Your task to perform on an android device: open sync settings in chrome Image 0: 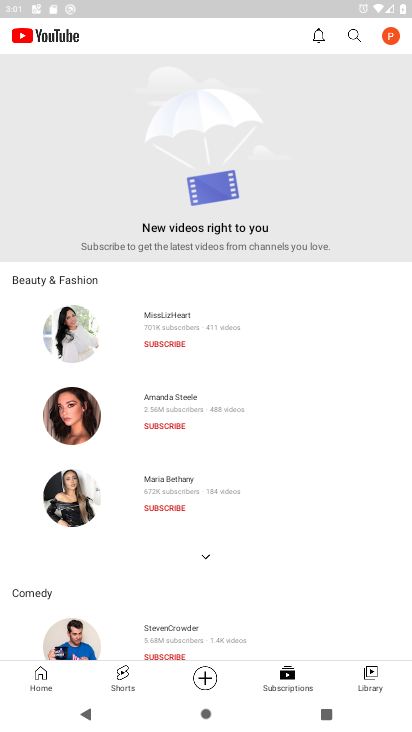
Step 0: press home button
Your task to perform on an android device: open sync settings in chrome Image 1: 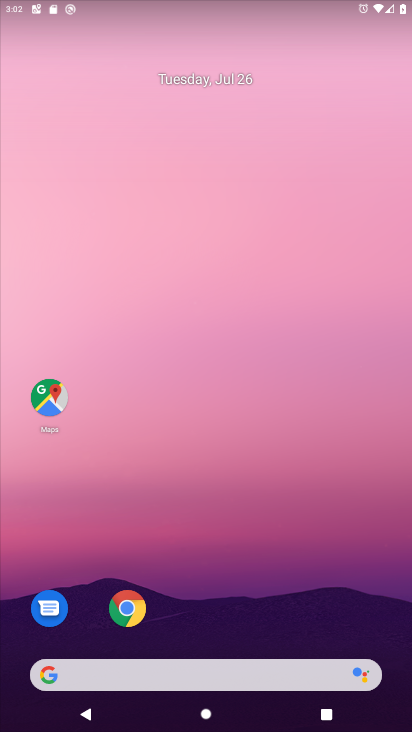
Step 1: click (122, 603)
Your task to perform on an android device: open sync settings in chrome Image 2: 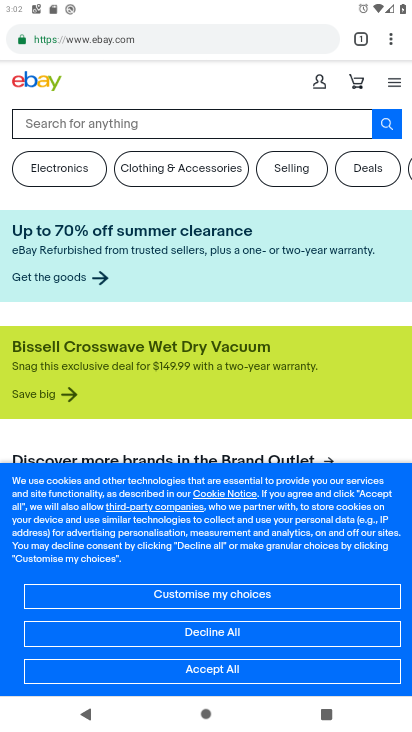
Step 2: click (389, 32)
Your task to perform on an android device: open sync settings in chrome Image 3: 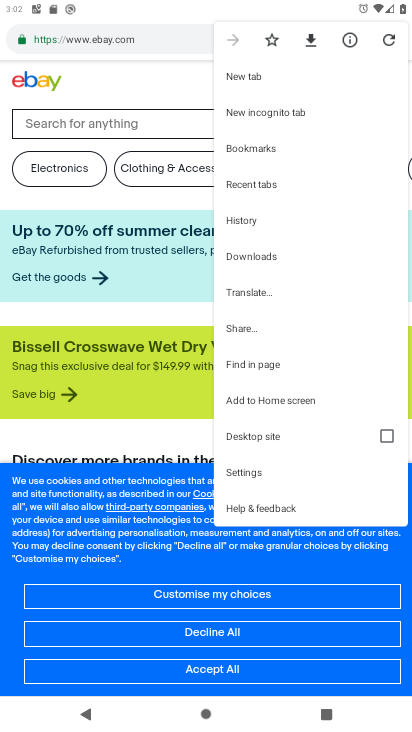
Step 3: click (276, 466)
Your task to perform on an android device: open sync settings in chrome Image 4: 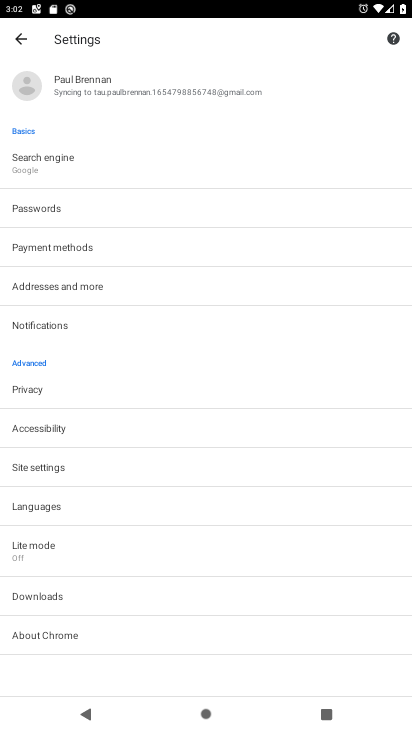
Step 4: click (163, 90)
Your task to perform on an android device: open sync settings in chrome Image 5: 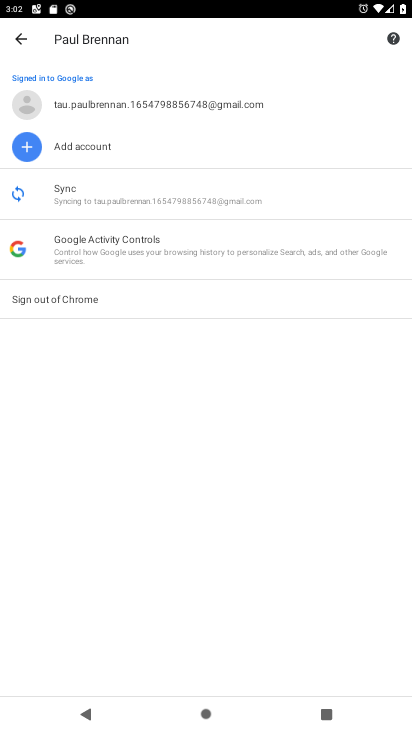
Step 5: click (116, 201)
Your task to perform on an android device: open sync settings in chrome Image 6: 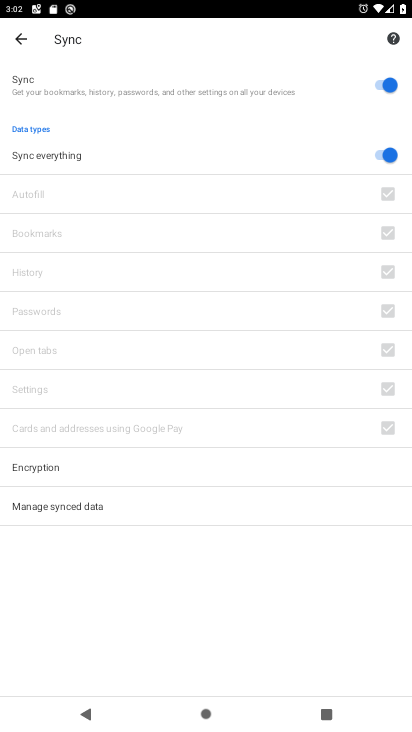
Step 6: task complete